Your task to perform on an android device: Open maps Image 0: 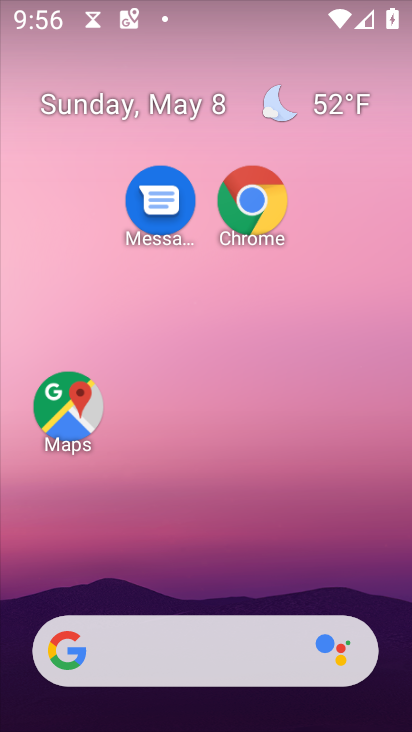
Step 0: click (52, 419)
Your task to perform on an android device: Open maps Image 1: 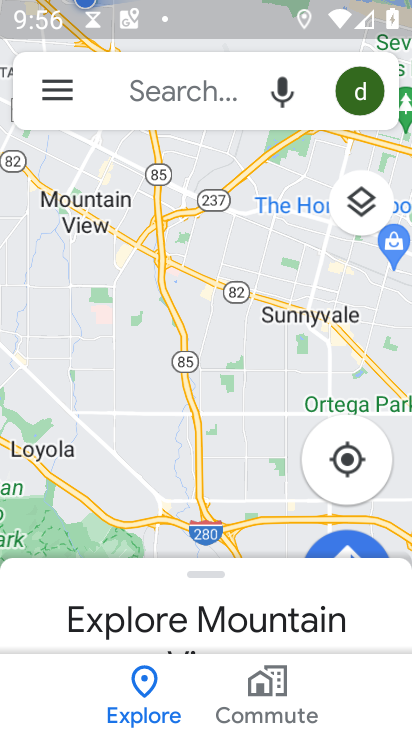
Step 1: task complete